Your task to perform on an android device: toggle notifications settings in the gmail app Image 0: 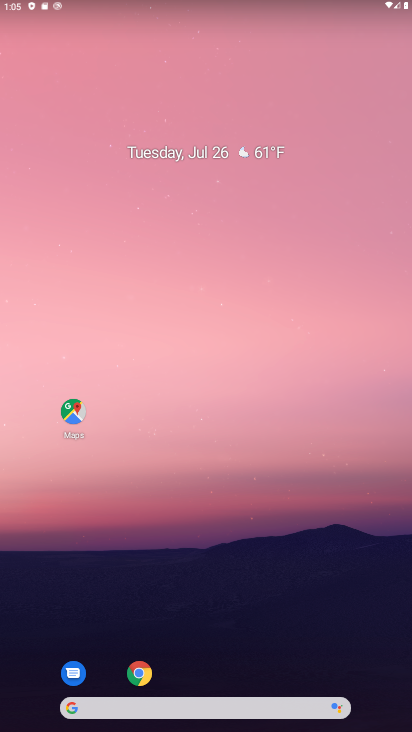
Step 0: drag from (153, 630) to (170, 232)
Your task to perform on an android device: toggle notifications settings in the gmail app Image 1: 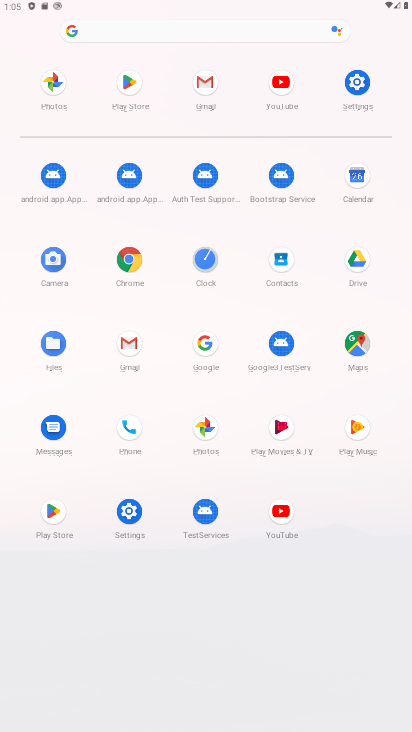
Step 1: click (123, 346)
Your task to perform on an android device: toggle notifications settings in the gmail app Image 2: 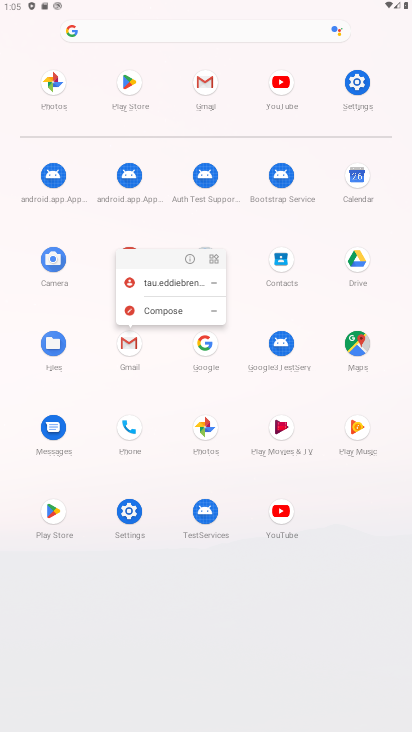
Step 2: click (189, 258)
Your task to perform on an android device: toggle notifications settings in the gmail app Image 3: 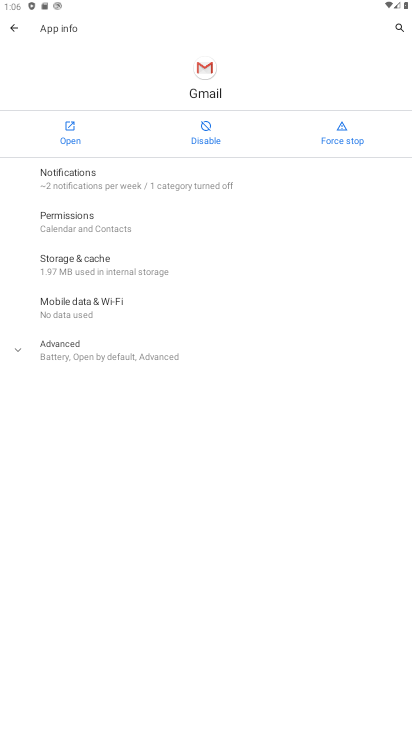
Step 3: click (67, 124)
Your task to perform on an android device: toggle notifications settings in the gmail app Image 4: 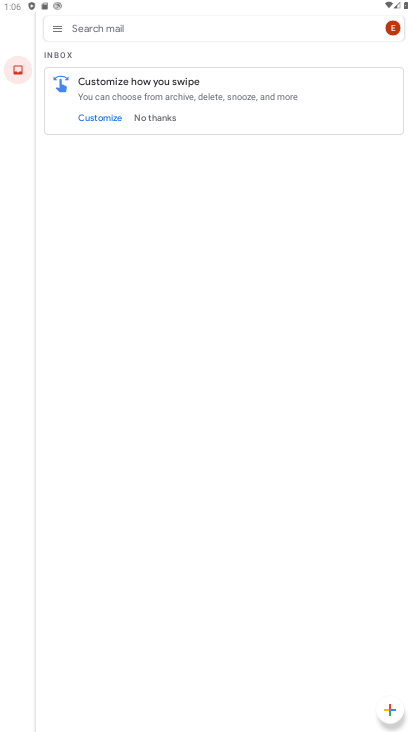
Step 4: drag from (196, 542) to (190, 291)
Your task to perform on an android device: toggle notifications settings in the gmail app Image 5: 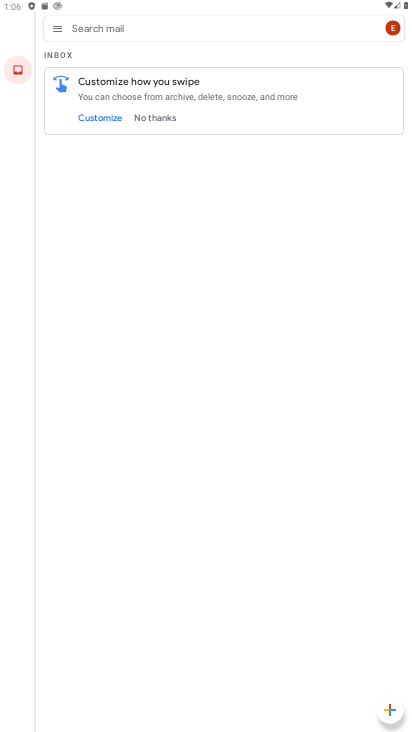
Step 5: click (50, 19)
Your task to perform on an android device: toggle notifications settings in the gmail app Image 6: 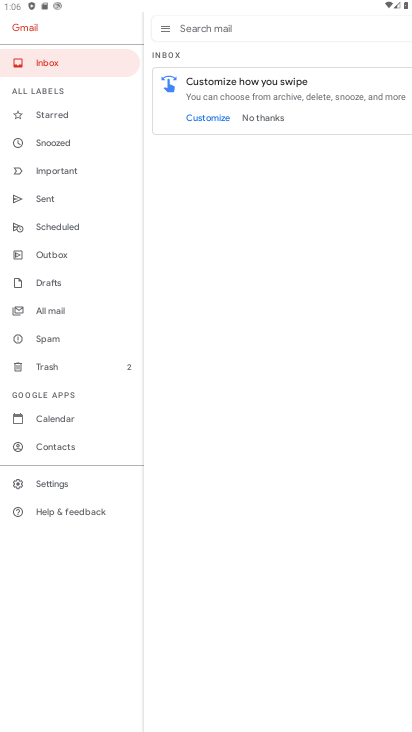
Step 6: click (51, 479)
Your task to perform on an android device: toggle notifications settings in the gmail app Image 7: 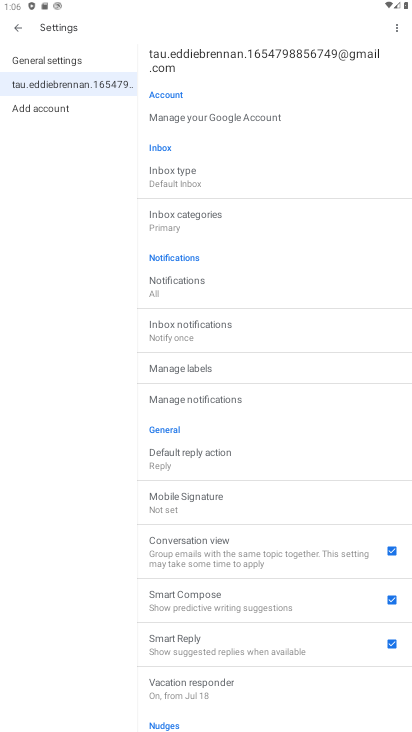
Step 7: drag from (196, 569) to (207, 241)
Your task to perform on an android device: toggle notifications settings in the gmail app Image 8: 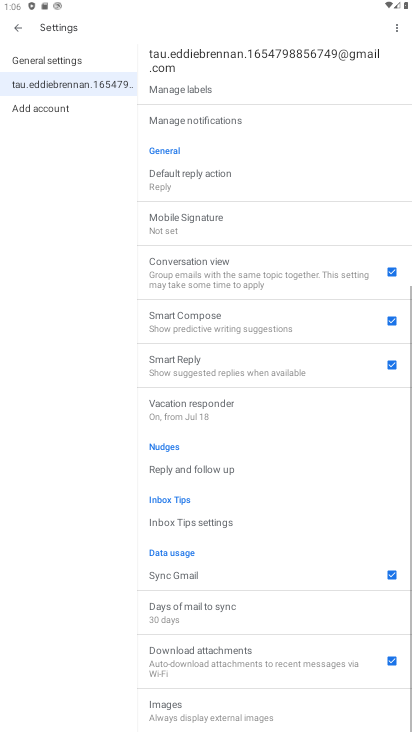
Step 8: drag from (208, 269) to (231, 698)
Your task to perform on an android device: toggle notifications settings in the gmail app Image 9: 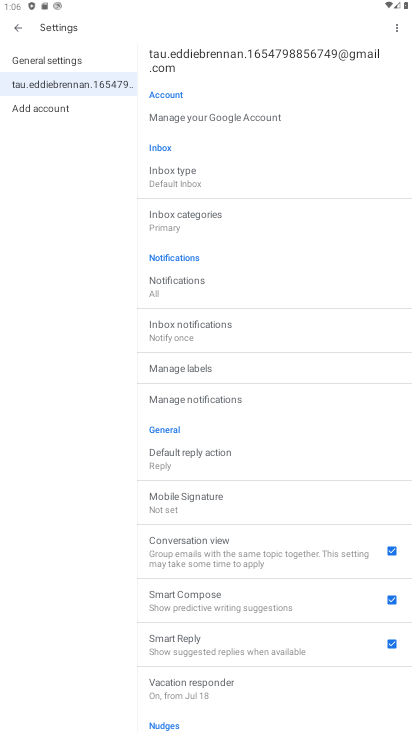
Step 9: click (188, 409)
Your task to perform on an android device: toggle notifications settings in the gmail app Image 10: 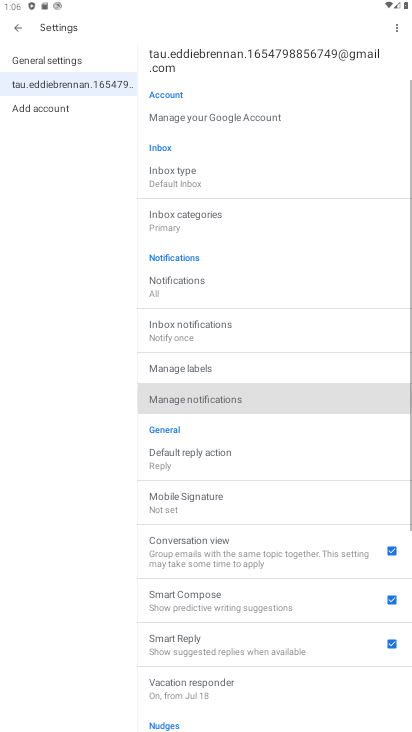
Step 10: click (187, 410)
Your task to perform on an android device: toggle notifications settings in the gmail app Image 11: 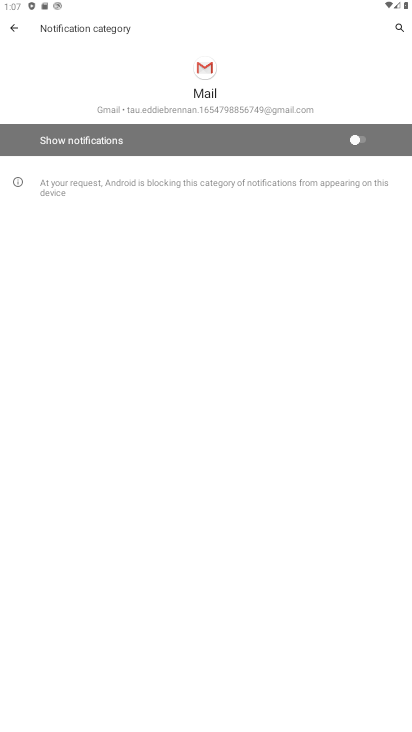
Step 11: task complete